Your task to perform on an android device: manage bookmarks in the chrome app Image 0: 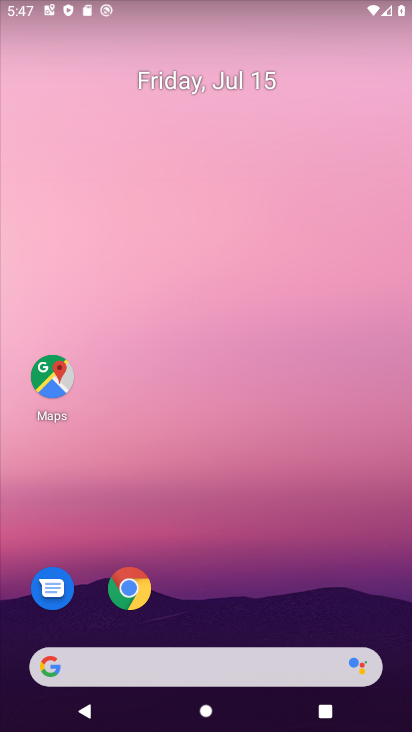
Step 0: drag from (263, 666) to (404, 348)
Your task to perform on an android device: manage bookmarks in the chrome app Image 1: 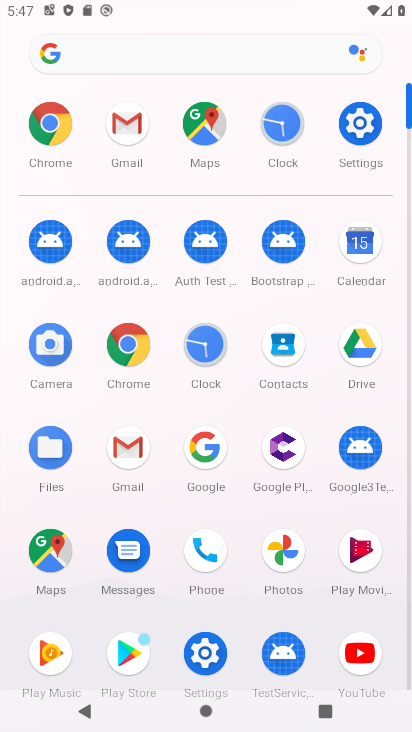
Step 1: click (130, 340)
Your task to perform on an android device: manage bookmarks in the chrome app Image 2: 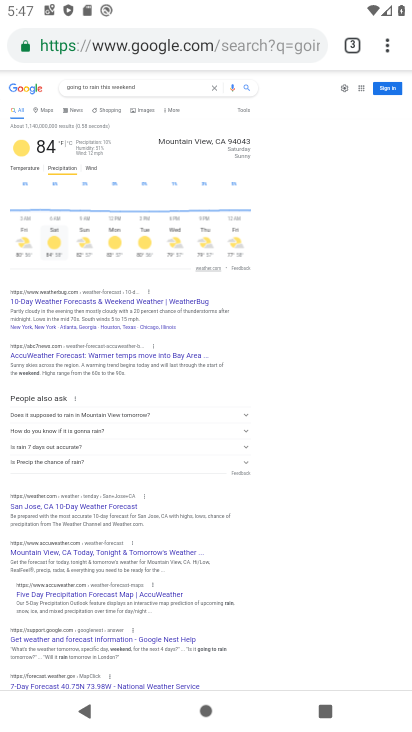
Step 2: click (379, 40)
Your task to perform on an android device: manage bookmarks in the chrome app Image 3: 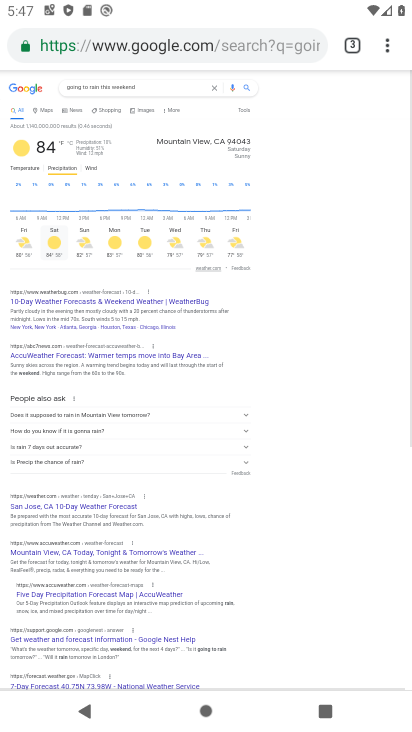
Step 3: click (382, 44)
Your task to perform on an android device: manage bookmarks in the chrome app Image 4: 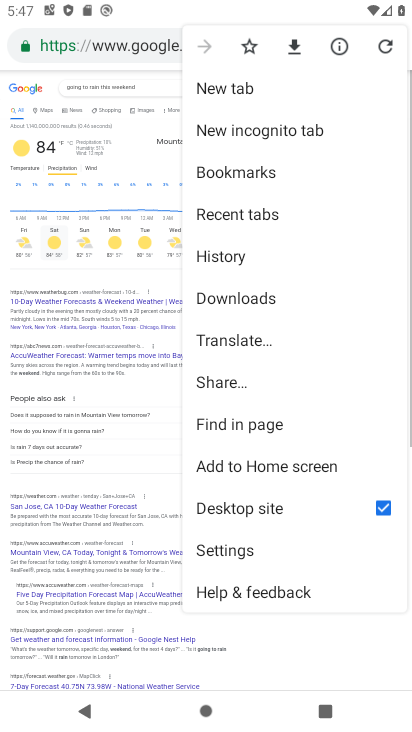
Step 4: click (278, 176)
Your task to perform on an android device: manage bookmarks in the chrome app Image 5: 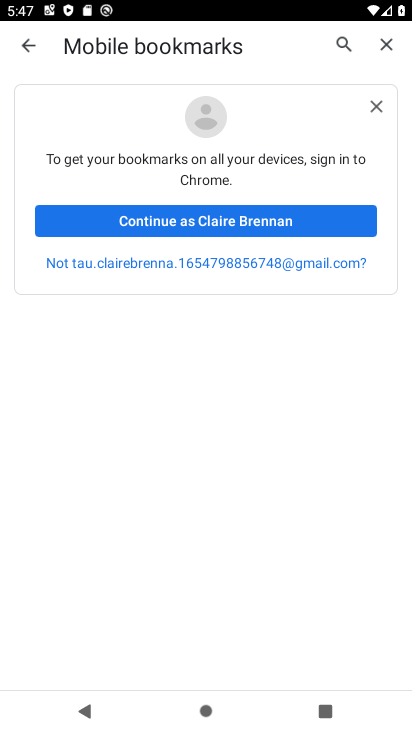
Step 5: task complete